Your task to perform on an android device: turn on location history Image 0: 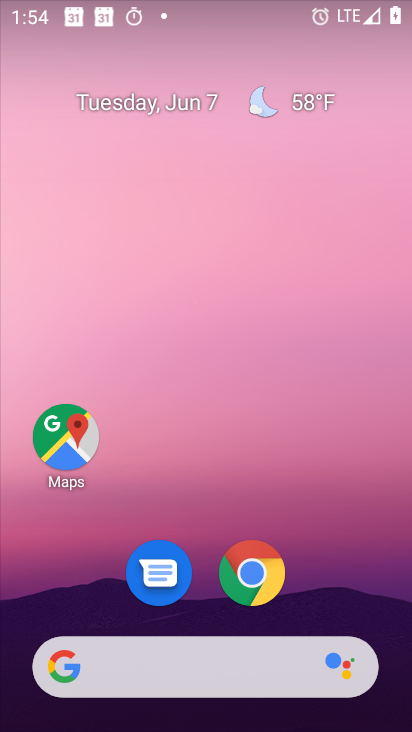
Step 0: drag from (329, 569) to (301, 61)
Your task to perform on an android device: turn on location history Image 1: 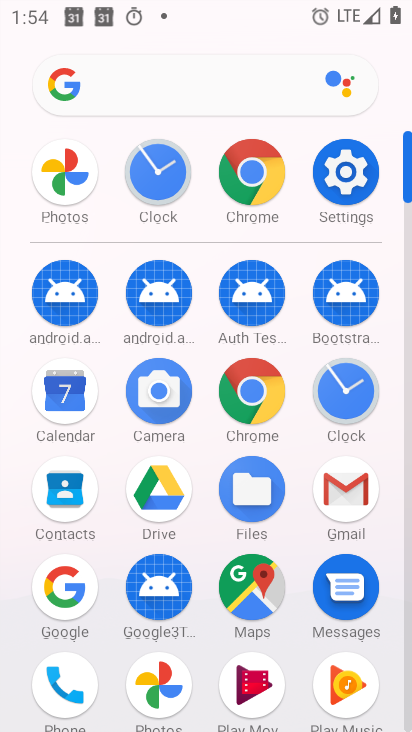
Step 1: click (234, 584)
Your task to perform on an android device: turn on location history Image 2: 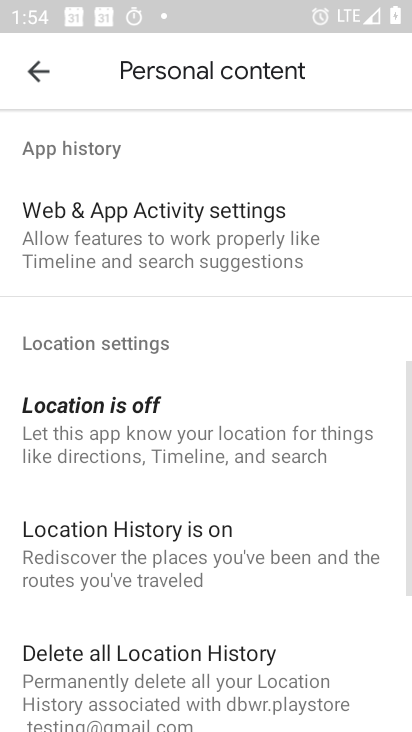
Step 2: click (130, 527)
Your task to perform on an android device: turn on location history Image 3: 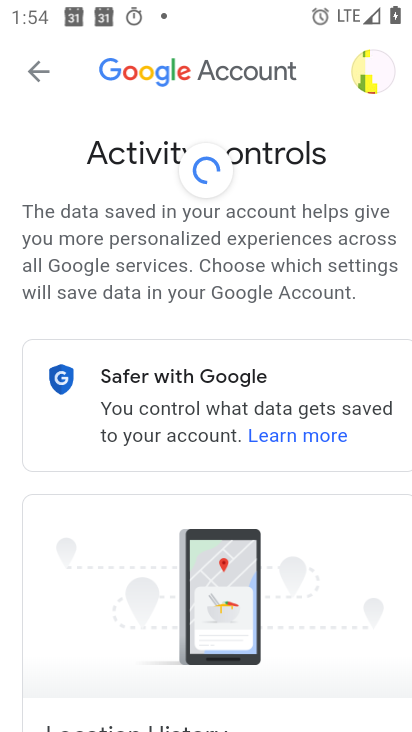
Step 3: task complete